Your task to perform on an android device: turn on translation in the chrome app Image 0: 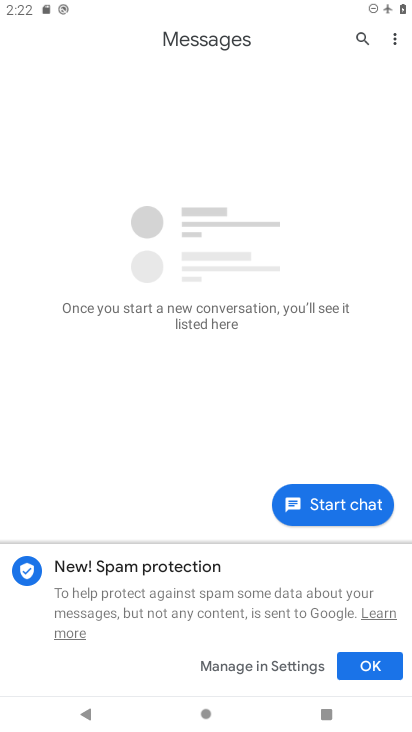
Step 0: press home button
Your task to perform on an android device: turn on translation in the chrome app Image 1: 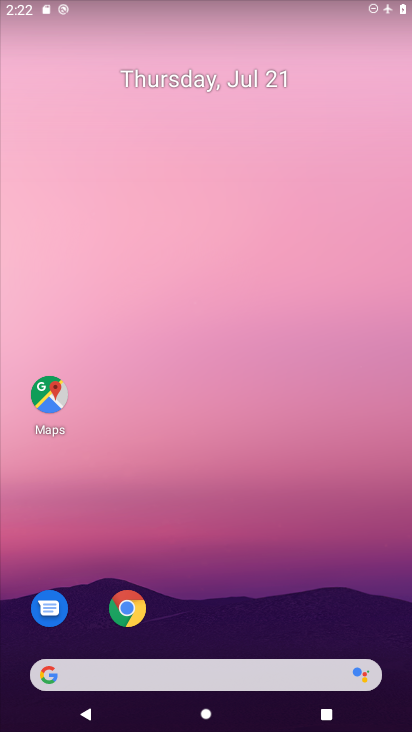
Step 1: drag from (237, 633) to (237, 174)
Your task to perform on an android device: turn on translation in the chrome app Image 2: 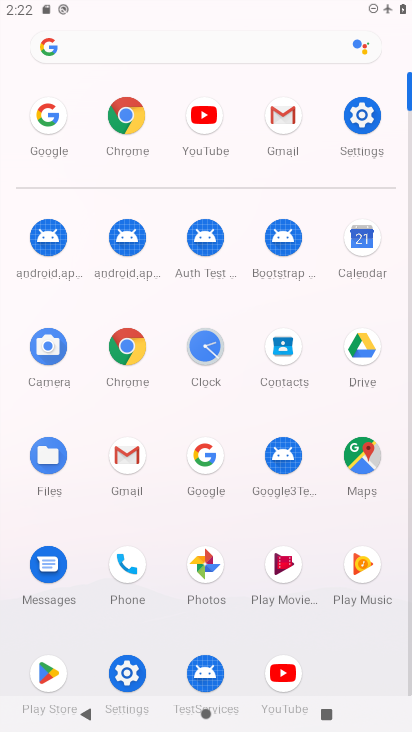
Step 2: click (127, 341)
Your task to perform on an android device: turn on translation in the chrome app Image 3: 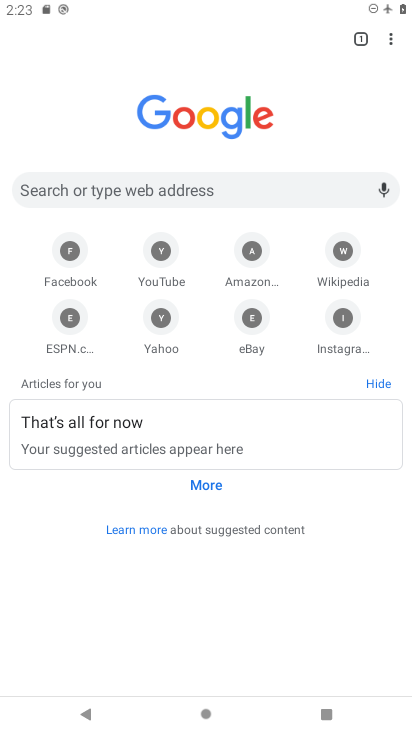
Step 3: click (390, 38)
Your task to perform on an android device: turn on translation in the chrome app Image 4: 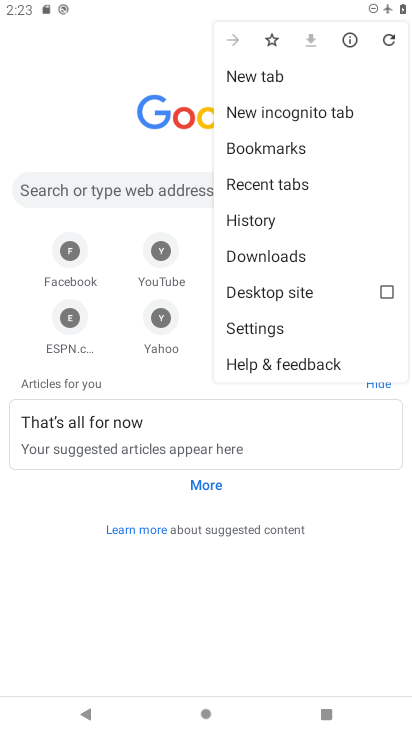
Step 4: click (256, 323)
Your task to perform on an android device: turn on translation in the chrome app Image 5: 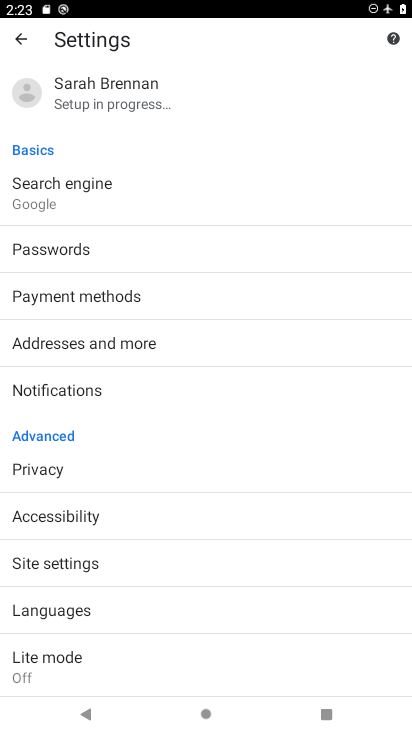
Step 5: click (54, 608)
Your task to perform on an android device: turn on translation in the chrome app Image 6: 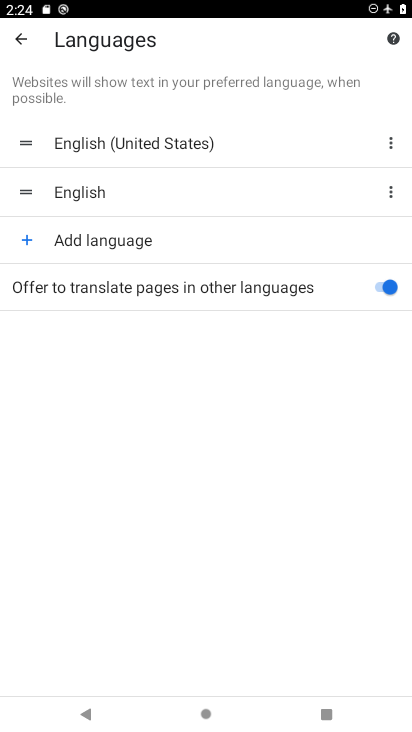
Step 6: task complete